Your task to perform on an android device: turn off location Image 0: 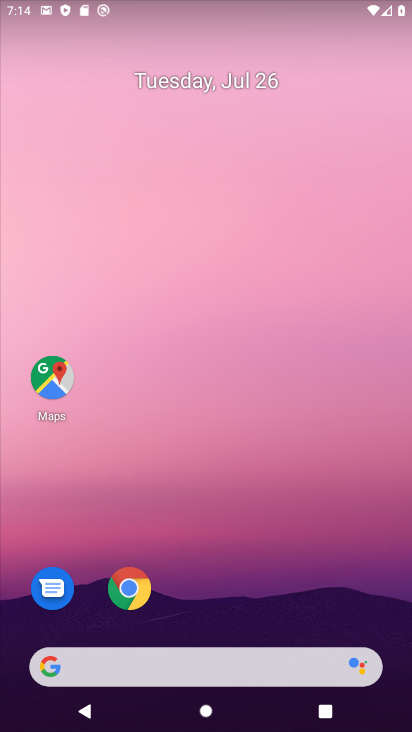
Step 0: drag from (242, 665) to (288, 44)
Your task to perform on an android device: turn off location Image 1: 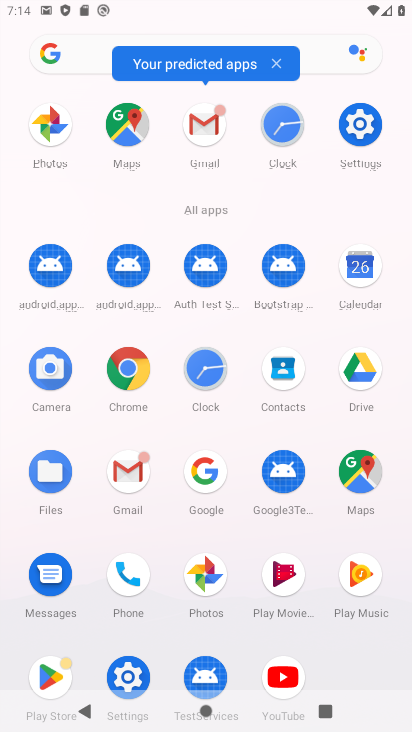
Step 1: click (354, 154)
Your task to perform on an android device: turn off location Image 2: 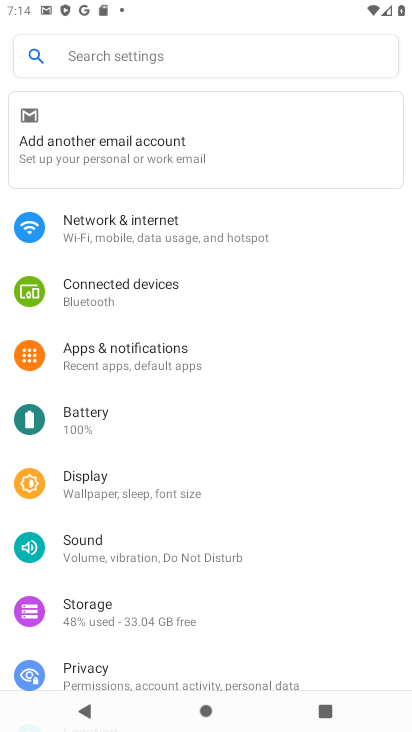
Step 2: drag from (198, 516) to (202, 194)
Your task to perform on an android device: turn off location Image 3: 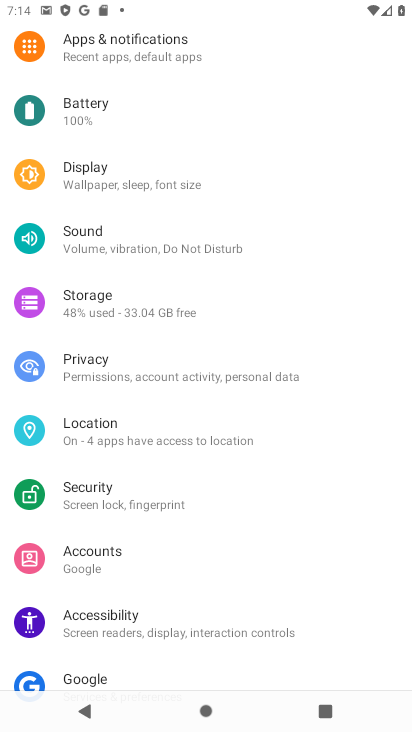
Step 3: click (135, 439)
Your task to perform on an android device: turn off location Image 4: 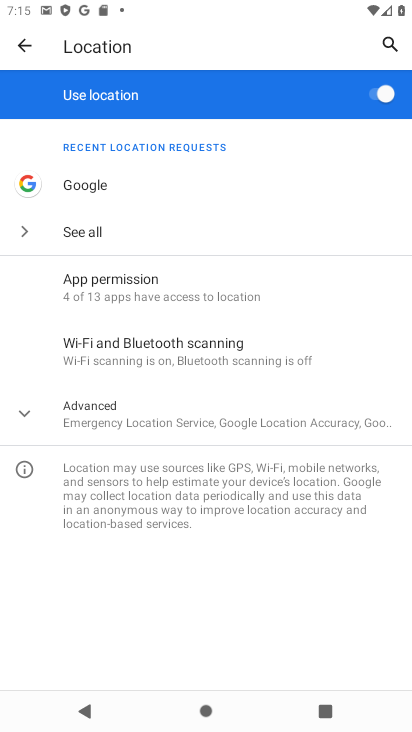
Step 4: click (325, 96)
Your task to perform on an android device: turn off location Image 5: 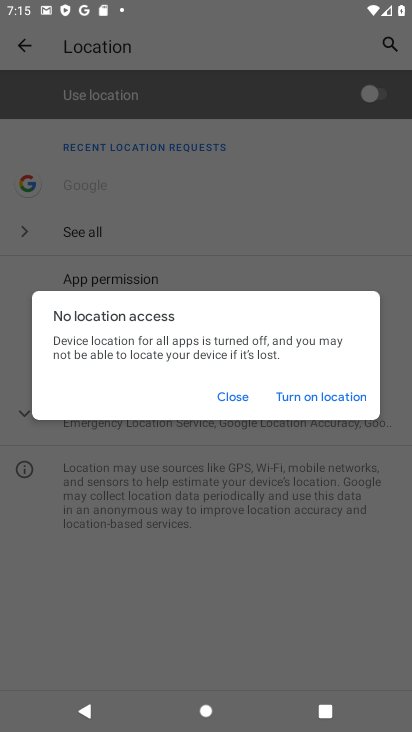
Step 5: click (232, 396)
Your task to perform on an android device: turn off location Image 6: 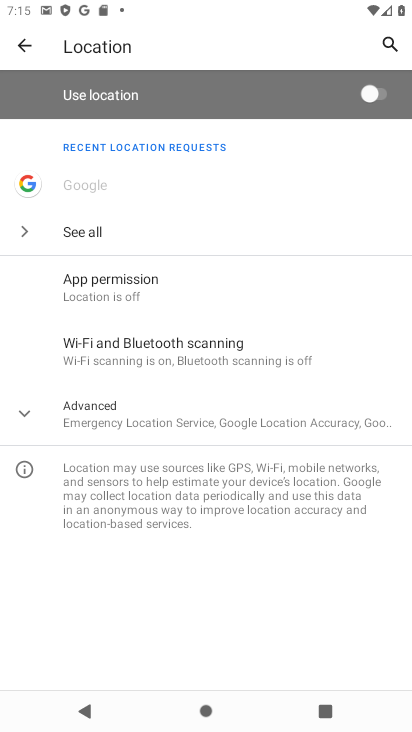
Step 6: task complete